Your task to perform on an android device: Search for vegetarian restaurants on Maps Image 0: 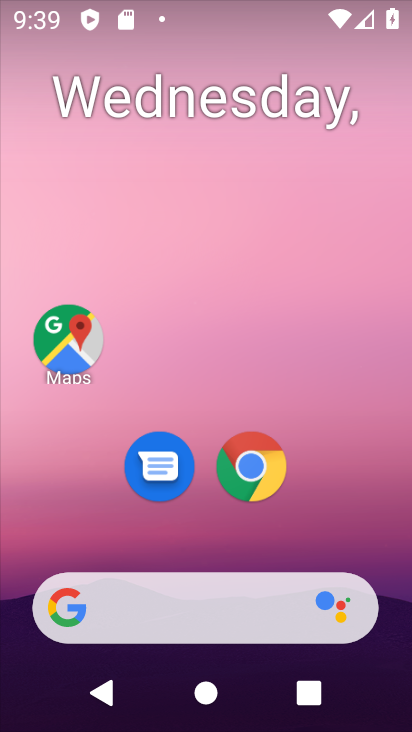
Step 0: click (73, 341)
Your task to perform on an android device: Search for vegetarian restaurants on Maps Image 1: 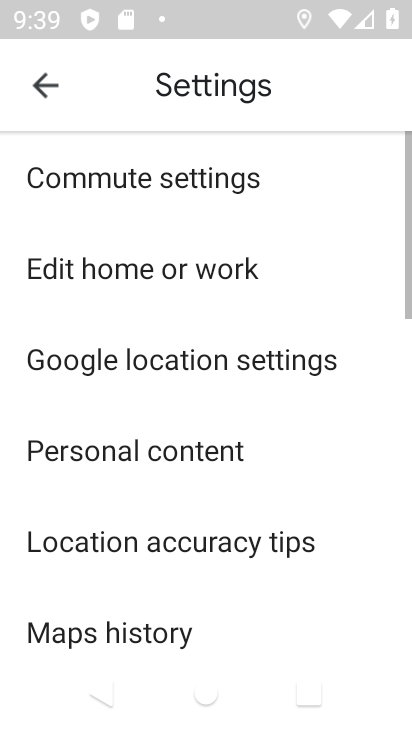
Step 1: click (47, 93)
Your task to perform on an android device: Search for vegetarian restaurants on Maps Image 2: 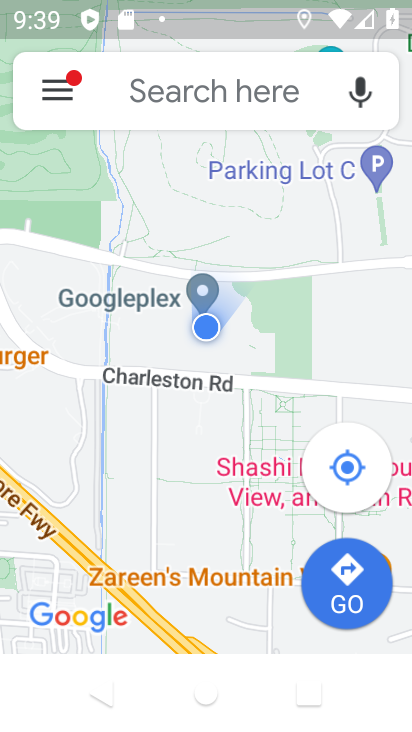
Step 2: click (149, 100)
Your task to perform on an android device: Search for vegetarian restaurants on Maps Image 3: 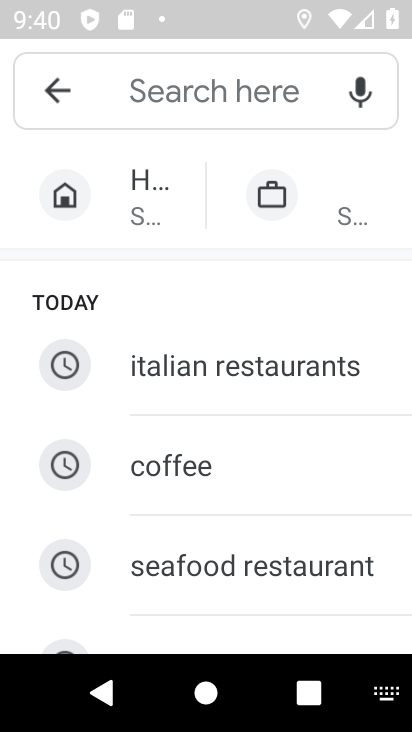
Step 3: type "vegetarian restaurants"
Your task to perform on an android device: Search for vegetarian restaurants on Maps Image 4: 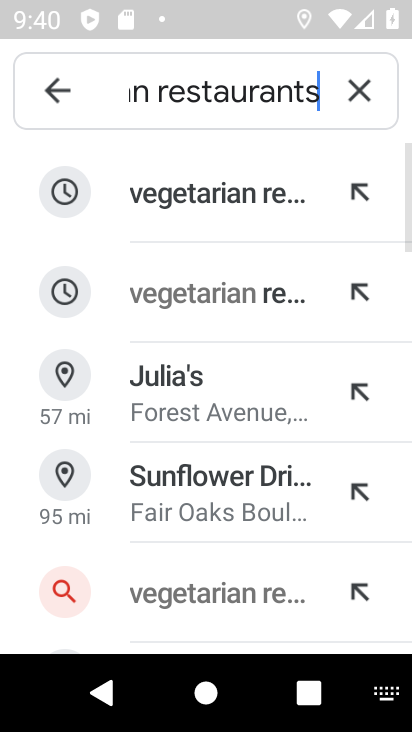
Step 4: click (172, 196)
Your task to perform on an android device: Search for vegetarian restaurants on Maps Image 5: 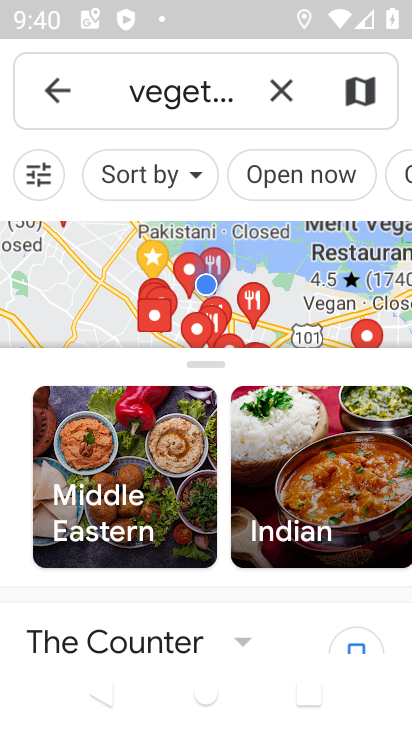
Step 5: drag from (179, 622) to (164, 264)
Your task to perform on an android device: Search for vegetarian restaurants on Maps Image 6: 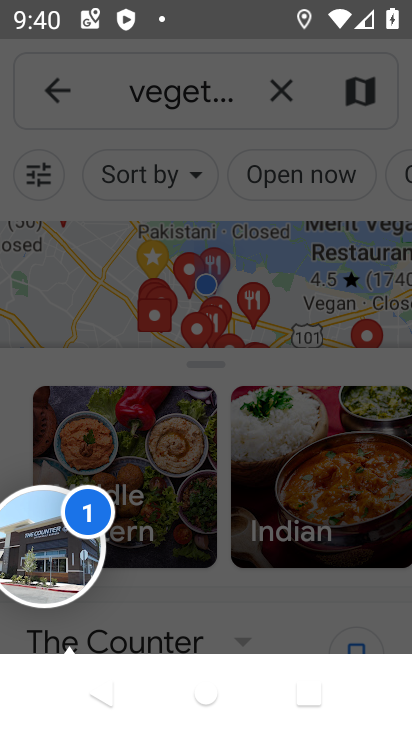
Step 6: drag from (225, 303) to (240, 205)
Your task to perform on an android device: Search for vegetarian restaurants on Maps Image 7: 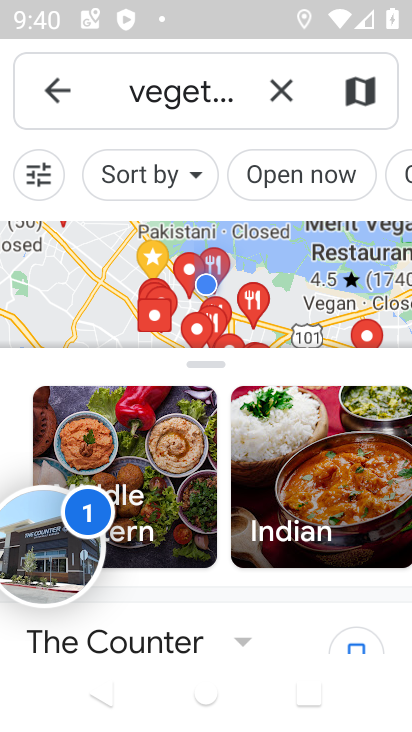
Step 7: click (77, 547)
Your task to perform on an android device: Search for vegetarian restaurants on Maps Image 8: 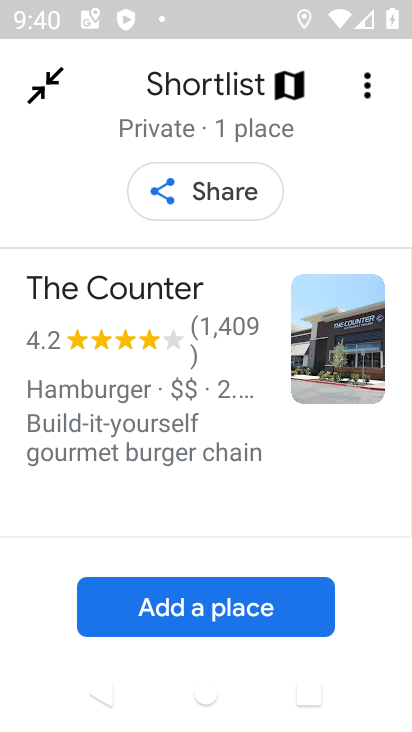
Step 8: press back button
Your task to perform on an android device: Search for vegetarian restaurants on Maps Image 9: 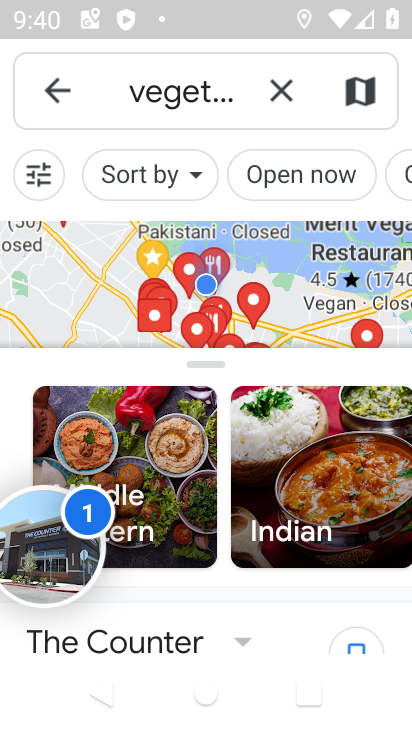
Step 9: drag from (239, 621) to (243, 535)
Your task to perform on an android device: Search for vegetarian restaurants on Maps Image 10: 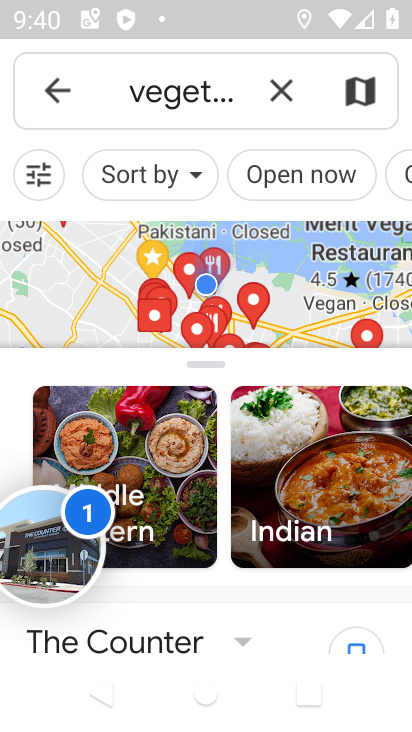
Step 10: drag from (228, 456) to (225, 352)
Your task to perform on an android device: Search for vegetarian restaurants on Maps Image 11: 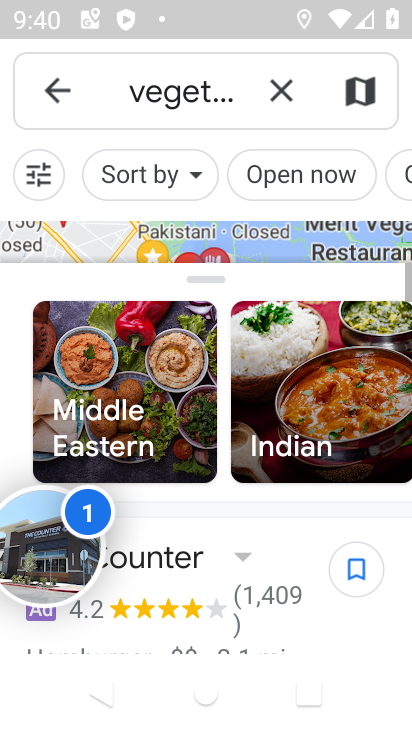
Step 11: drag from (226, 305) to (217, 204)
Your task to perform on an android device: Search for vegetarian restaurants on Maps Image 12: 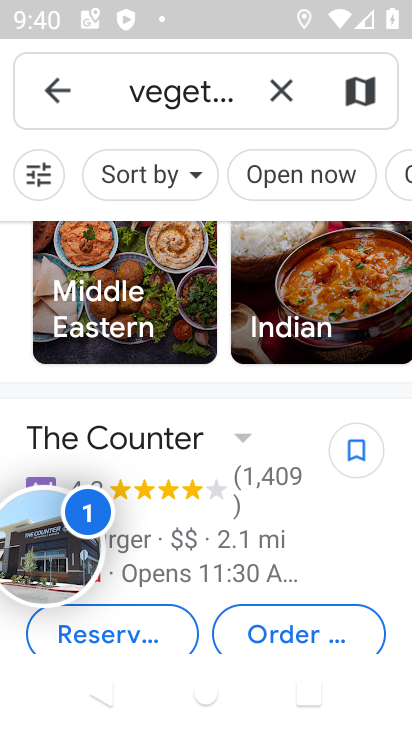
Step 12: drag from (151, 607) to (272, 709)
Your task to perform on an android device: Search for vegetarian restaurants on Maps Image 13: 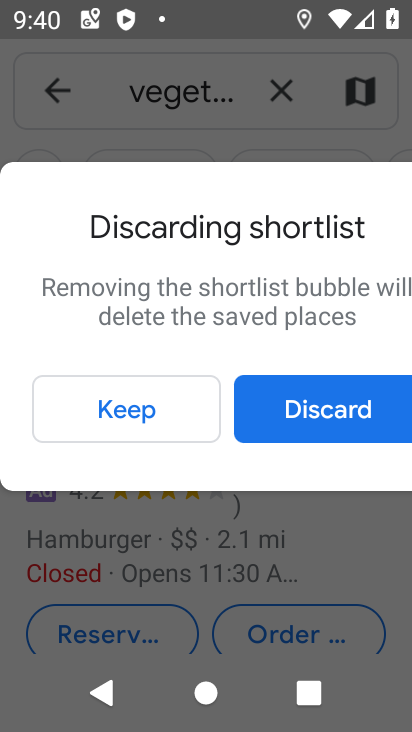
Step 13: click (297, 394)
Your task to perform on an android device: Search for vegetarian restaurants on Maps Image 14: 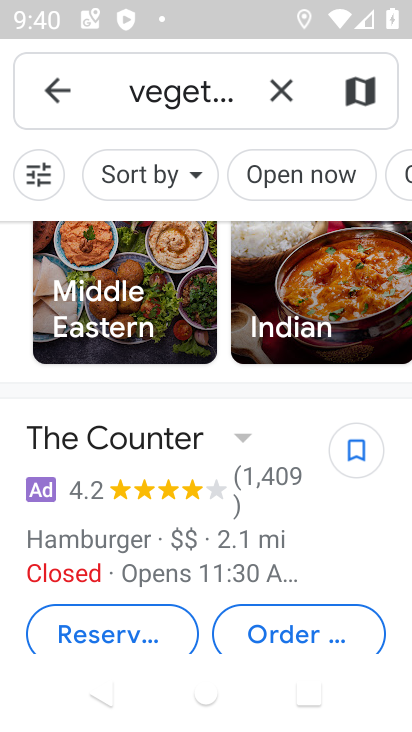
Step 14: task complete